Your task to perform on an android device: Open the calendar and show me this week's events Image 0: 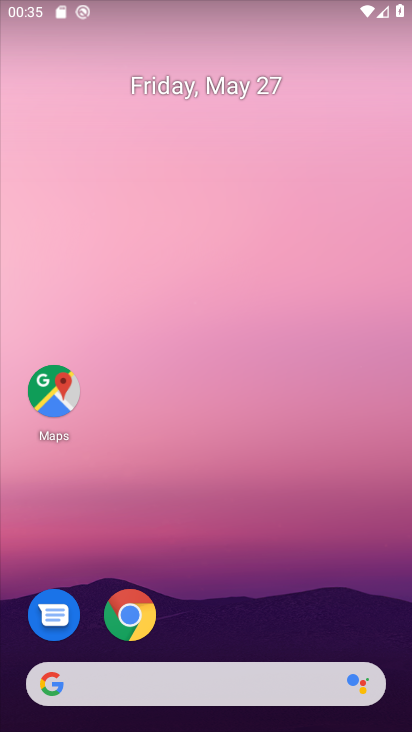
Step 0: drag from (352, 615) to (353, 243)
Your task to perform on an android device: Open the calendar and show me this week's events Image 1: 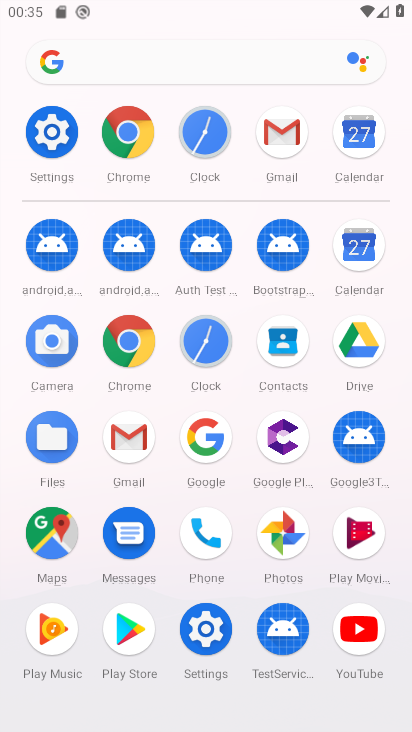
Step 1: click (354, 267)
Your task to perform on an android device: Open the calendar and show me this week's events Image 2: 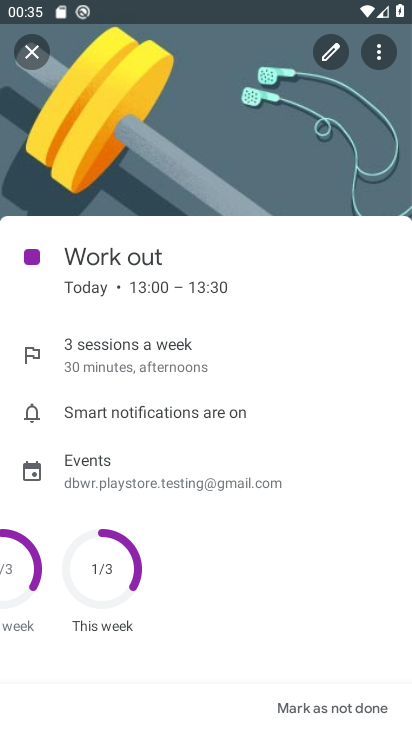
Step 2: click (32, 52)
Your task to perform on an android device: Open the calendar and show me this week's events Image 3: 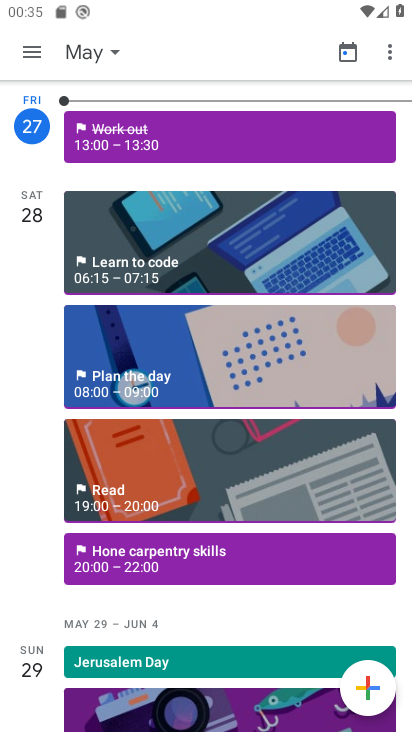
Step 3: drag from (215, 214) to (250, 475)
Your task to perform on an android device: Open the calendar and show me this week's events Image 4: 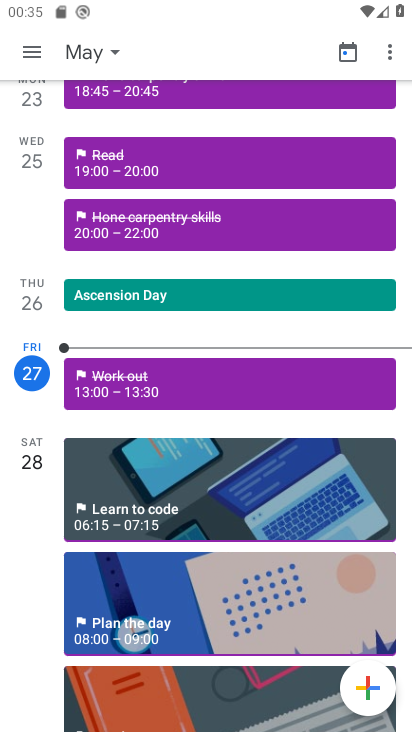
Step 4: drag from (247, 198) to (242, 406)
Your task to perform on an android device: Open the calendar and show me this week's events Image 5: 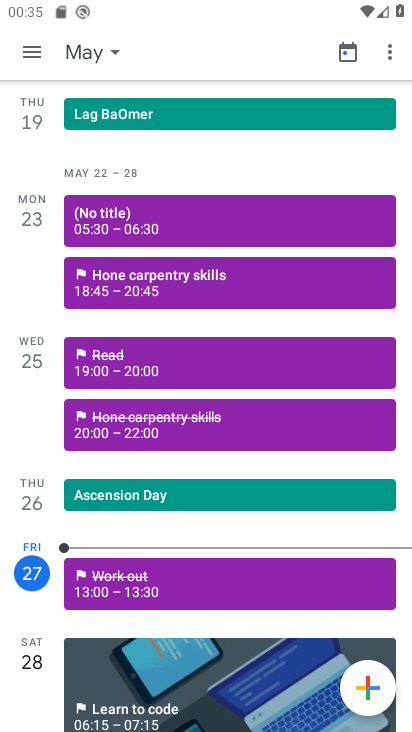
Step 5: click (239, 581)
Your task to perform on an android device: Open the calendar and show me this week's events Image 6: 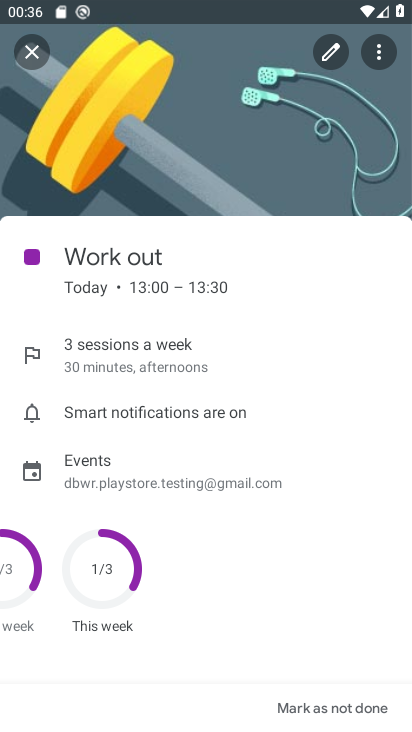
Step 6: task complete